Your task to perform on an android device: change notification settings in the gmail app Image 0: 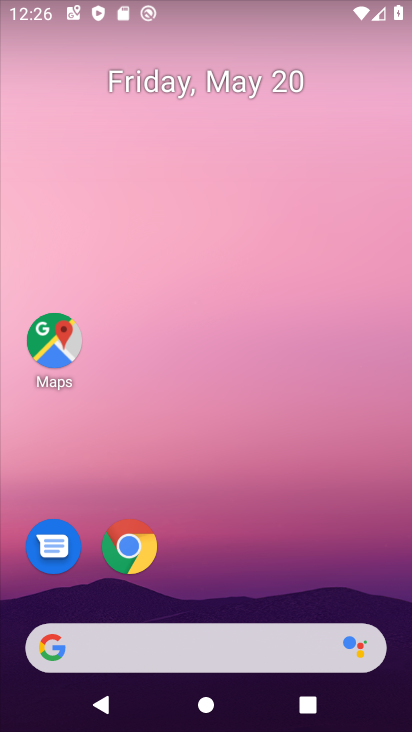
Step 0: drag from (245, 541) to (258, 51)
Your task to perform on an android device: change notification settings in the gmail app Image 1: 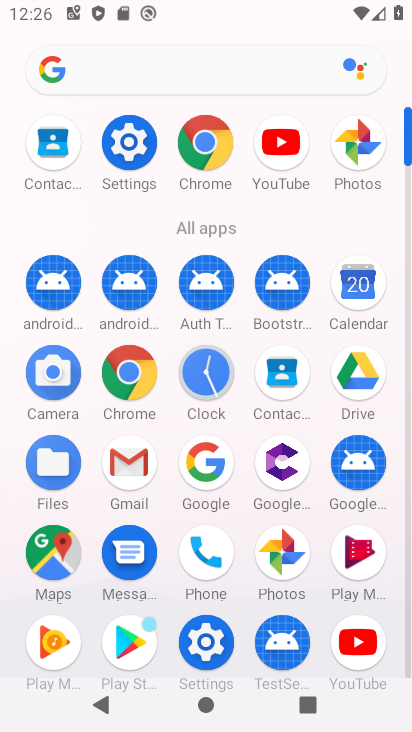
Step 1: click (132, 472)
Your task to perform on an android device: change notification settings in the gmail app Image 2: 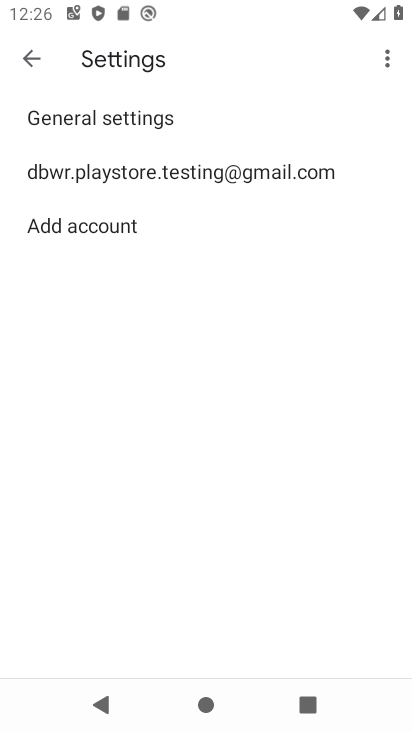
Step 2: click (251, 164)
Your task to perform on an android device: change notification settings in the gmail app Image 3: 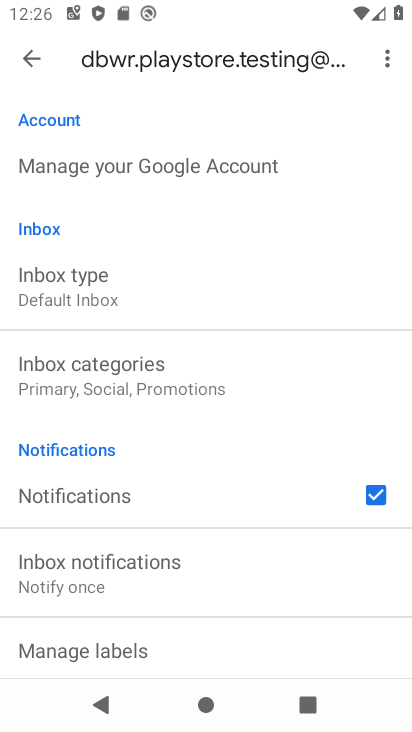
Step 3: drag from (195, 343) to (203, 203)
Your task to perform on an android device: change notification settings in the gmail app Image 4: 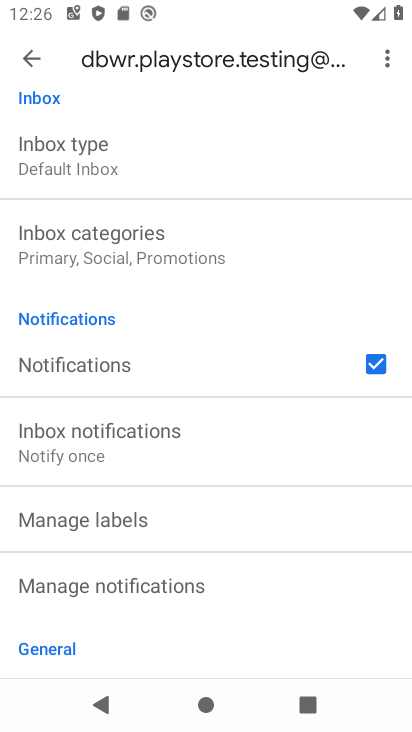
Step 4: click (188, 582)
Your task to perform on an android device: change notification settings in the gmail app Image 5: 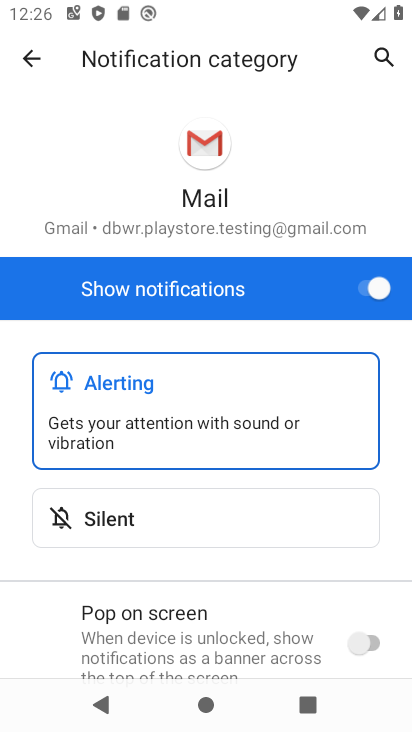
Step 5: click (371, 287)
Your task to perform on an android device: change notification settings in the gmail app Image 6: 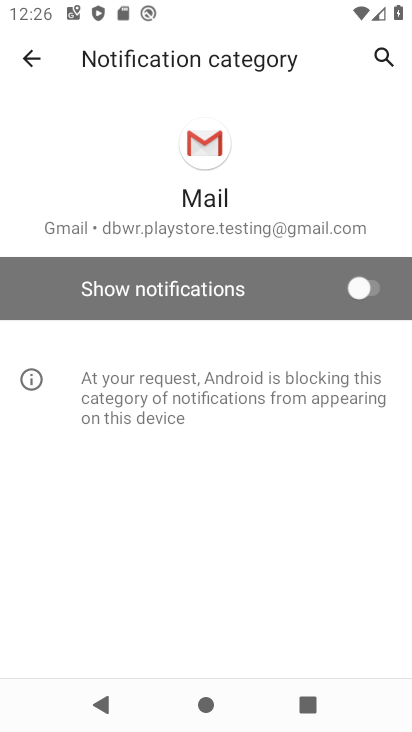
Step 6: task complete